Your task to perform on an android device: Open Google Chrome and click the shortcut for Amazon.com Image 0: 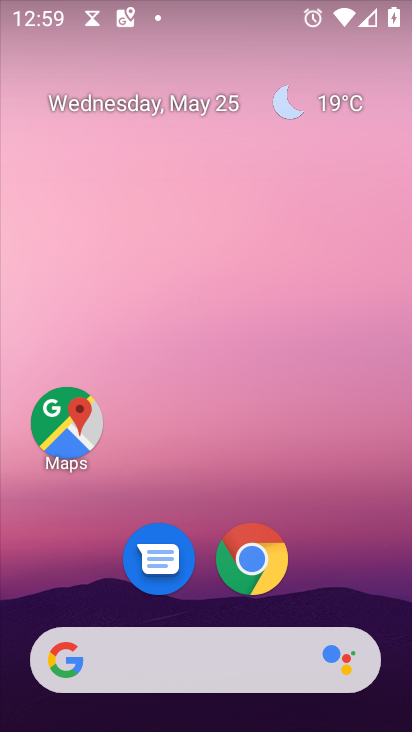
Step 0: click (253, 593)
Your task to perform on an android device: Open Google Chrome and click the shortcut for Amazon.com Image 1: 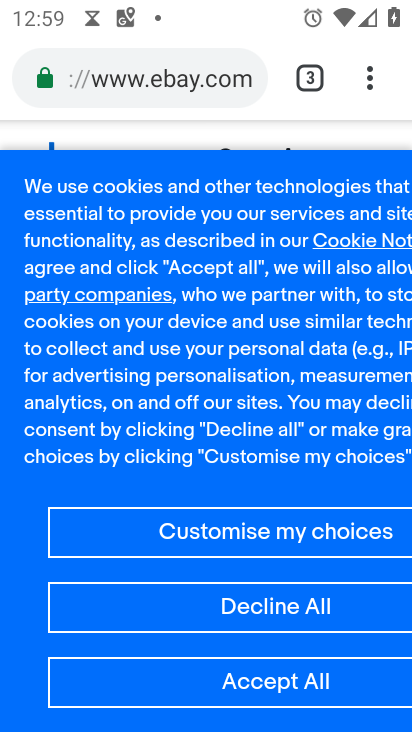
Step 1: click (191, 85)
Your task to perform on an android device: Open Google Chrome and click the shortcut for Amazon.com Image 2: 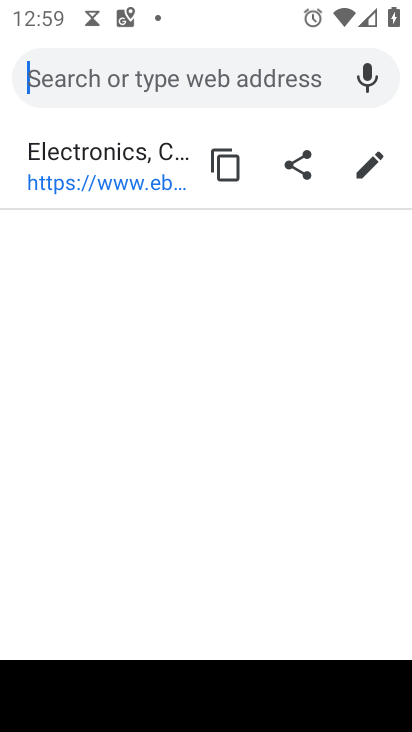
Step 2: type "amazon"
Your task to perform on an android device: Open Google Chrome and click the shortcut for Amazon.com Image 3: 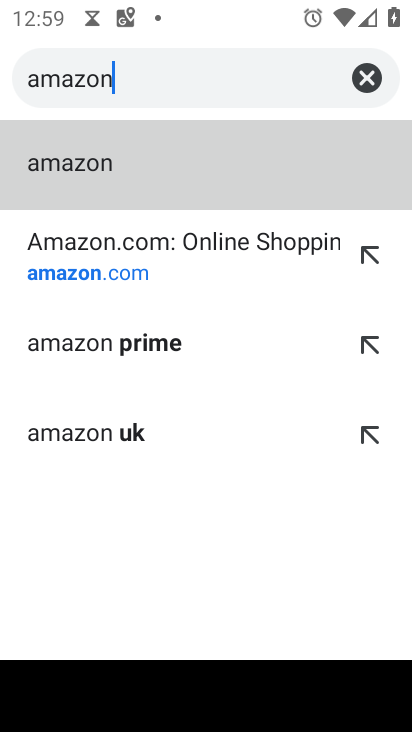
Step 3: click (175, 280)
Your task to perform on an android device: Open Google Chrome and click the shortcut for Amazon.com Image 4: 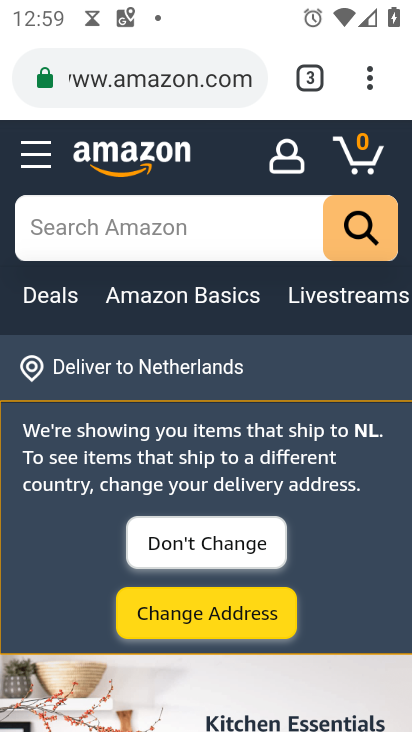
Step 4: task complete